Your task to perform on an android device: Open location settings Image 0: 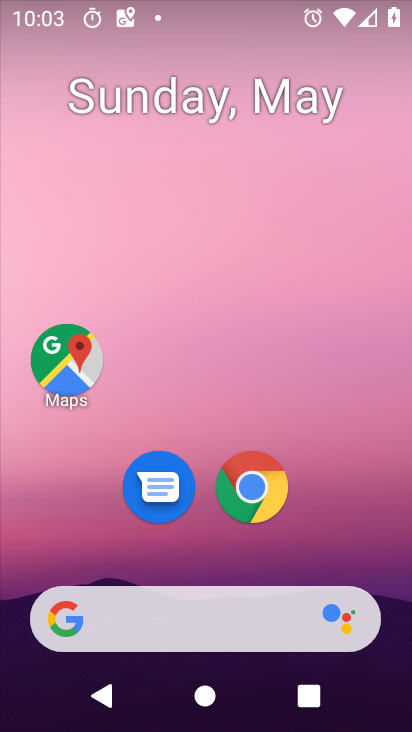
Step 0: drag from (202, 652) to (230, 159)
Your task to perform on an android device: Open location settings Image 1: 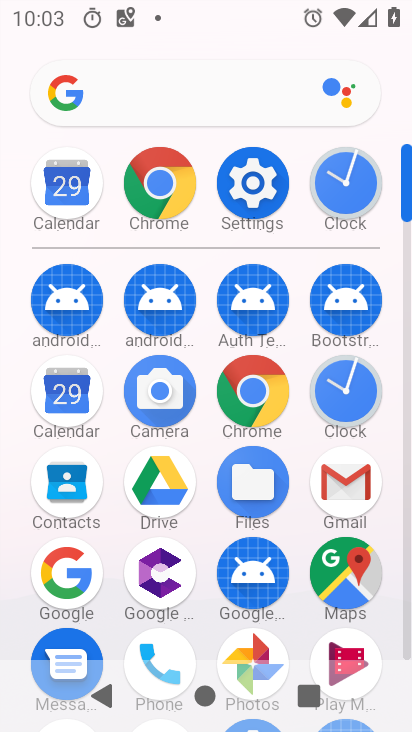
Step 1: click (266, 206)
Your task to perform on an android device: Open location settings Image 2: 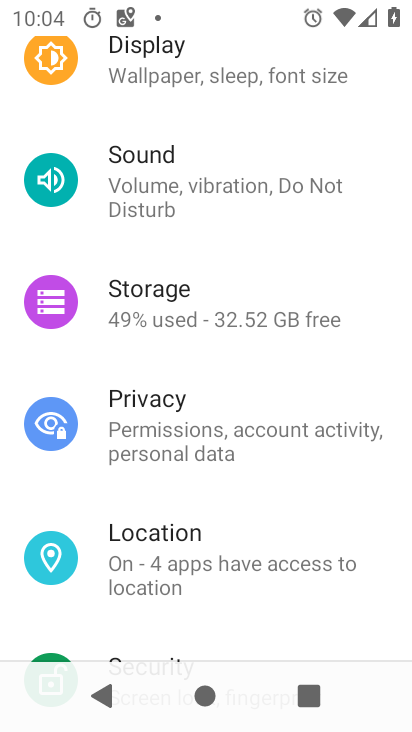
Step 2: click (167, 555)
Your task to perform on an android device: Open location settings Image 3: 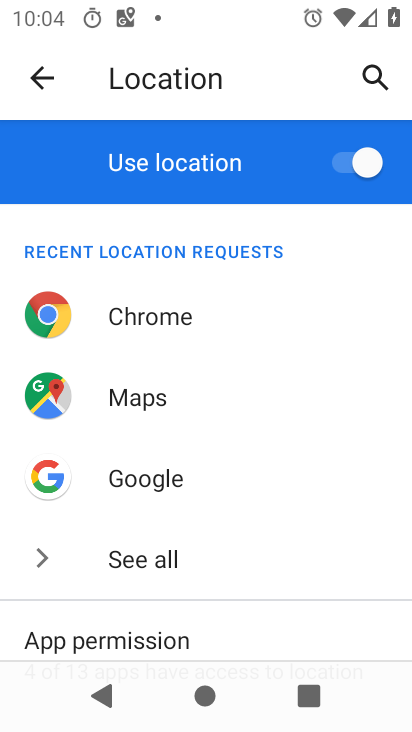
Step 3: task complete